Your task to perform on an android device: open chrome and create a bookmark for the current page Image 0: 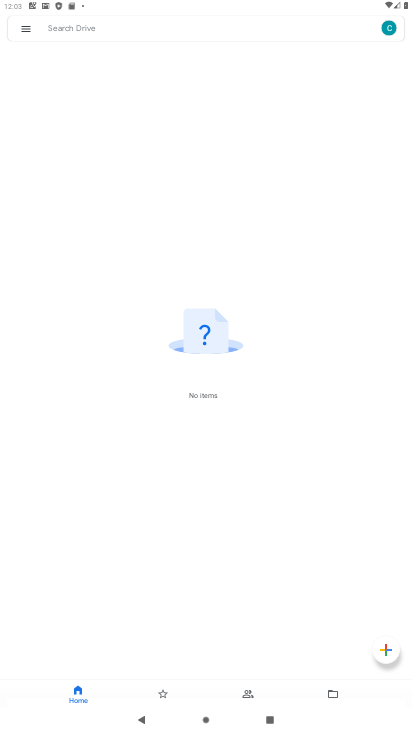
Step 0: press home button
Your task to perform on an android device: open chrome and create a bookmark for the current page Image 1: 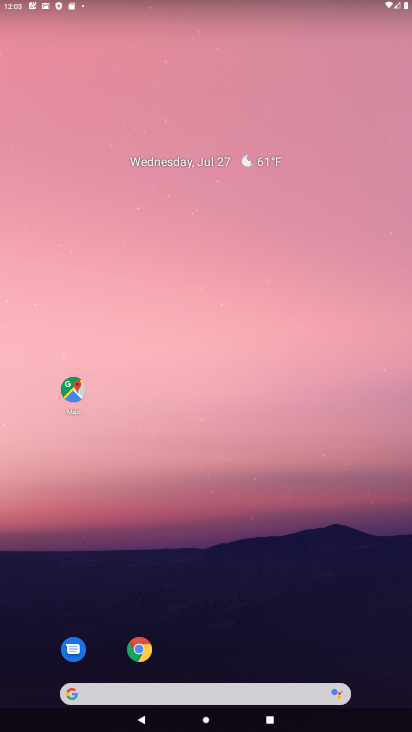
Step 1: click (139, 655)
Your task to perform on an android device: open chrome and create a bookmark for the current page Image 2: 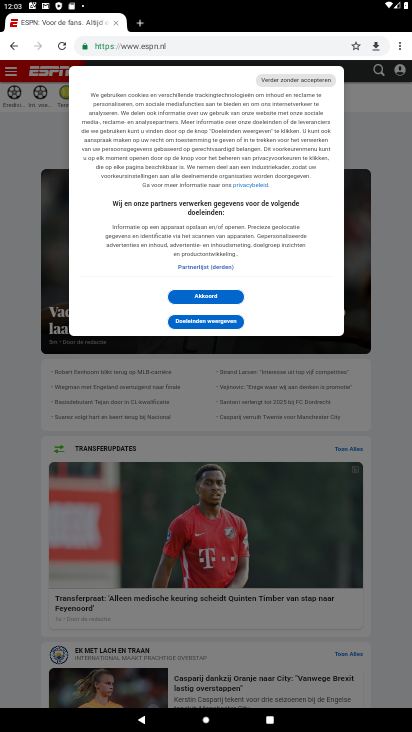
Step 2: click (357, 44)
Your task to perform on an android device: open chrome and create a bookmark for the current page Image 3: 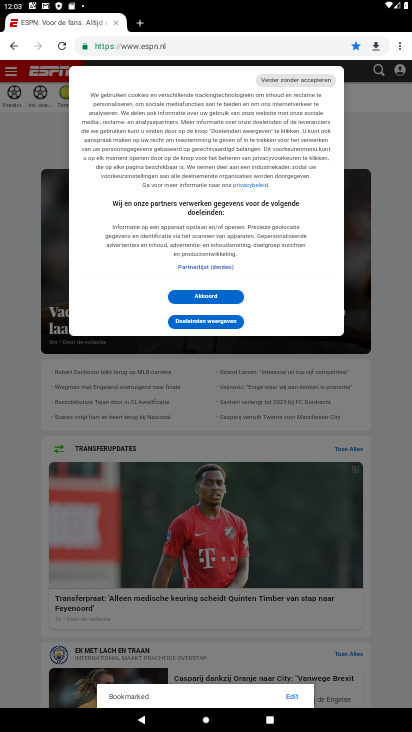
Step 3: task complete